Your task to perform on an android device: turn pop-ups on in chrome Image 0: 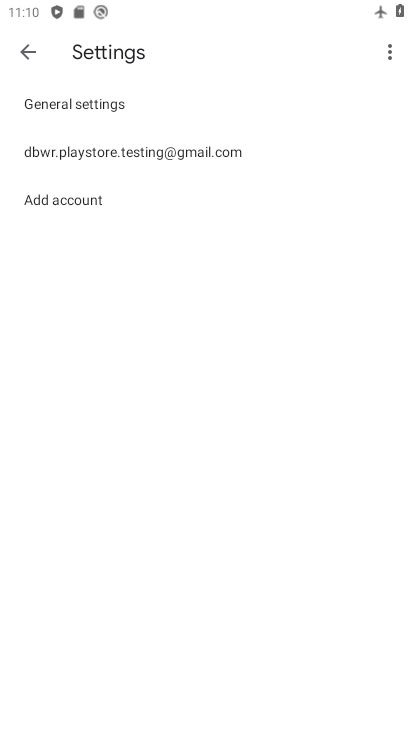
Step 0: press home button
Your task to perform on an android device: turn pop-ups on in chrome Image 1: 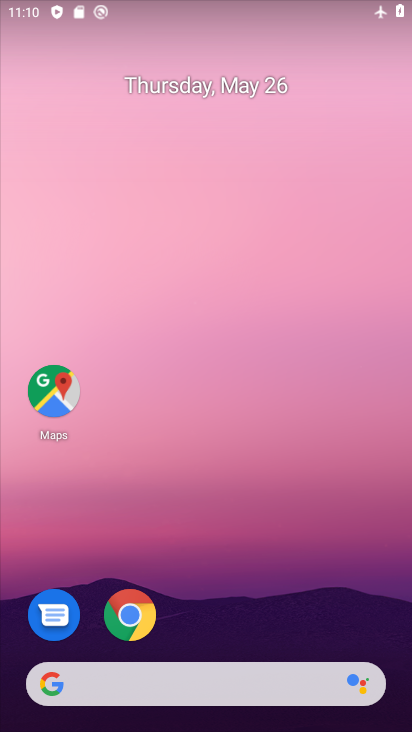
Step 1: drag from (359, 633) to (411, 360)
Your task to perform on an android device: turn pop-ups on in chrome Image 2: 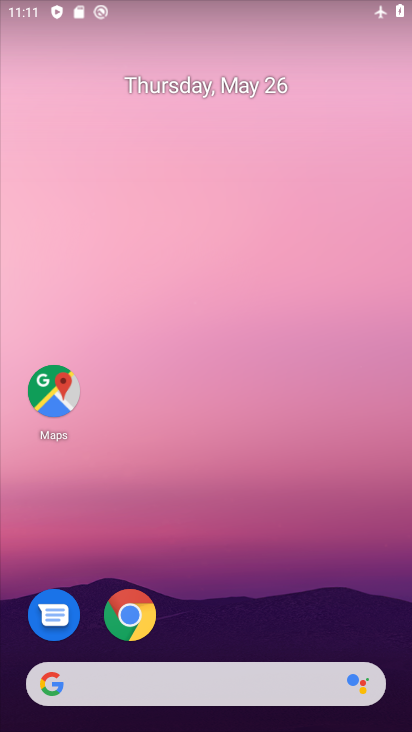
Step 2: click (136, 615)
Your task to perform on an android device: turn pop-ups on in chrome Image 3: 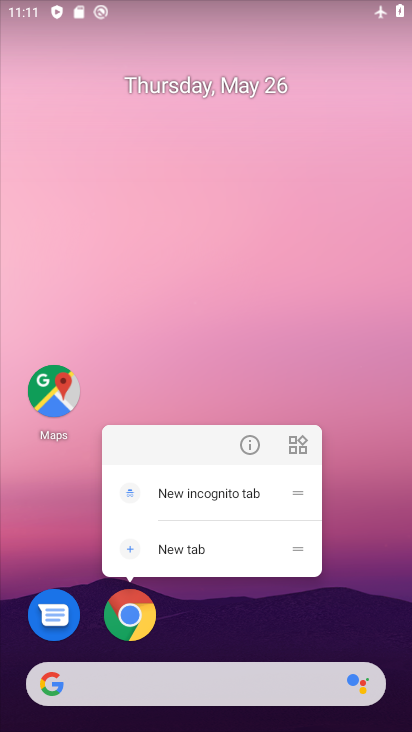
Step 3: click (136, 615)
Your task to perform on an android device: turn pop-ups on in chrome Image 4: 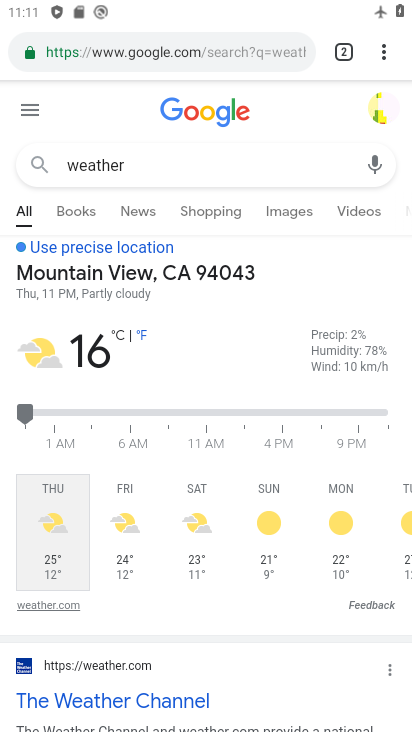
Step 4: drag from (378, 50) to (177, 576)
Your task to perform on an android device: turn pop-ups on in chrome Image 5: 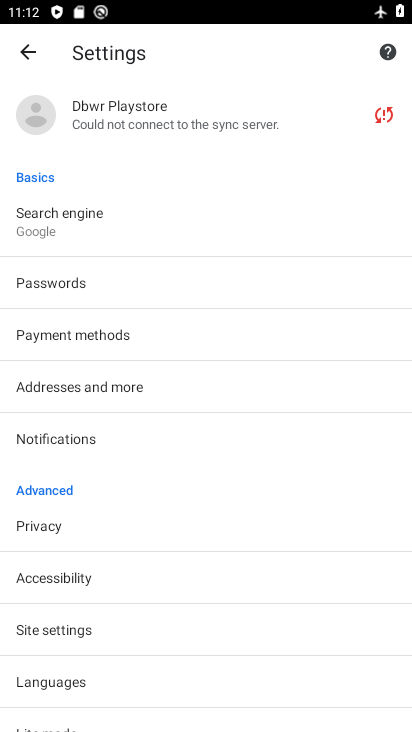
Step 5: click (25, 632)
Your task to perform on an android device: turn pop-ups on in chrome Image 6: 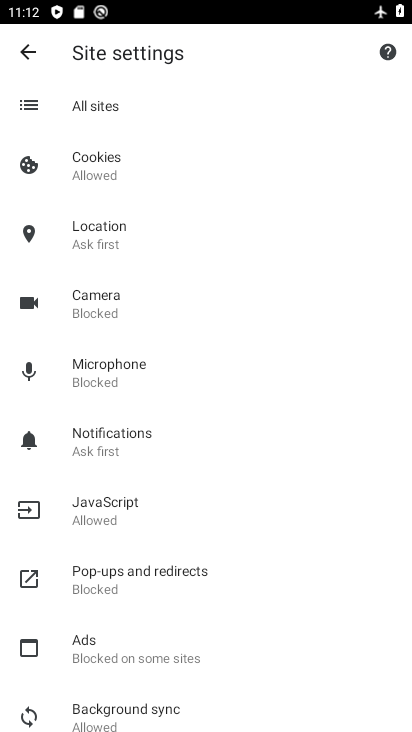
Step 6: click (151, 577)
Your task to perform on an android device: turn pop-ups on in chrome Image 7: 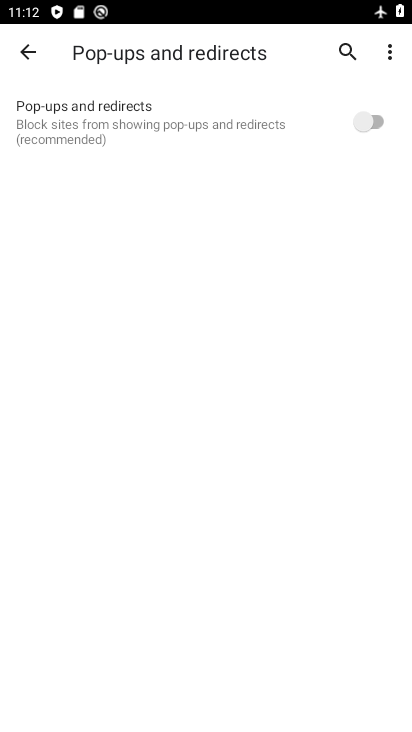
Step 7: task complete